Your task to perform on an android device: delete the emails in spam in the gmail app Image 0: 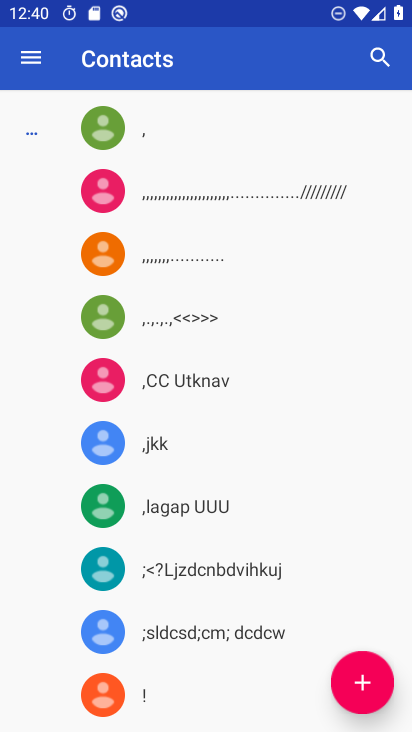
Step 0: press home button
Your task to perform on an android device: delete the emails in spam in the gmail app Image 1: 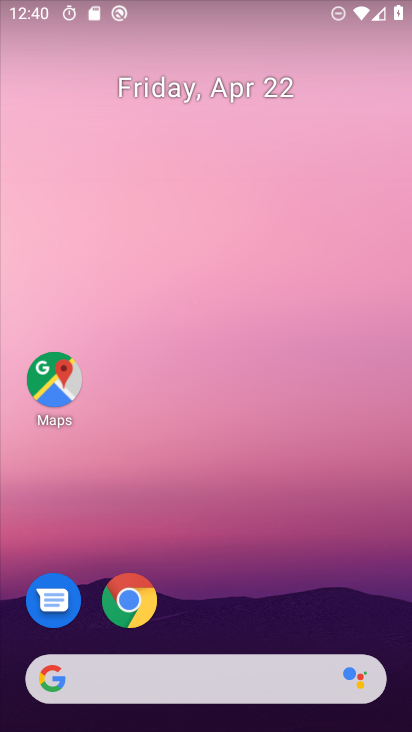
Step 1: drag from (193, 564) to (245, 63)
Your task to perform on an android device: delete the emails in spam in the gmail app Image 2: 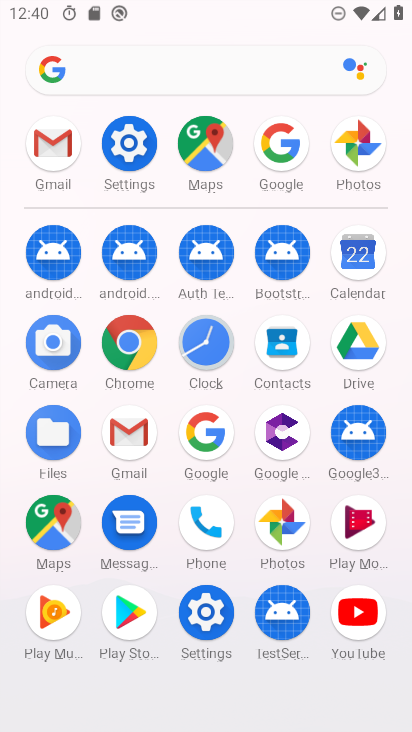
Step 2: click (53, 144)
Your task to perform on an android device: delete the emails in spam in the gmail app Image 3: 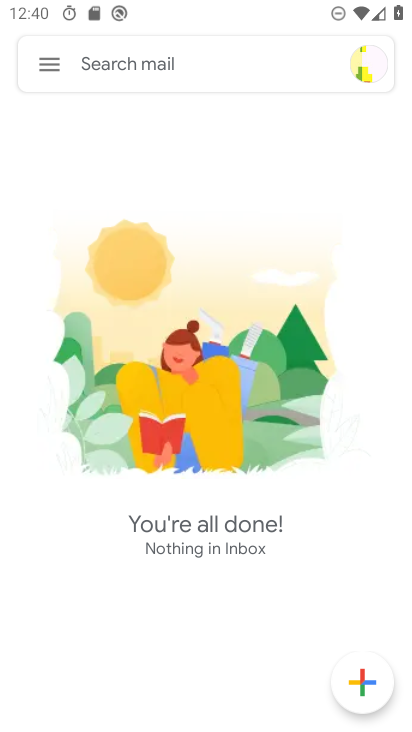
Step 3: click (51, 65)
Your task to perform on an android device: delete the emails in spam in the gmail app Image 4: 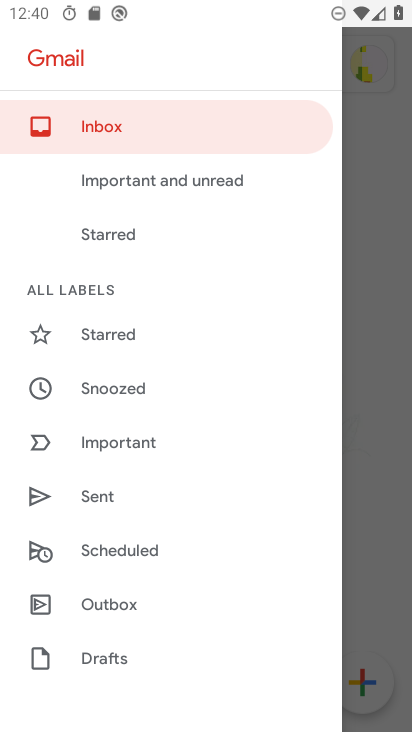
Step 4: click (51, 65)
Your task to perform on an android device: delete the emails in spam in the gmail app Image 5: 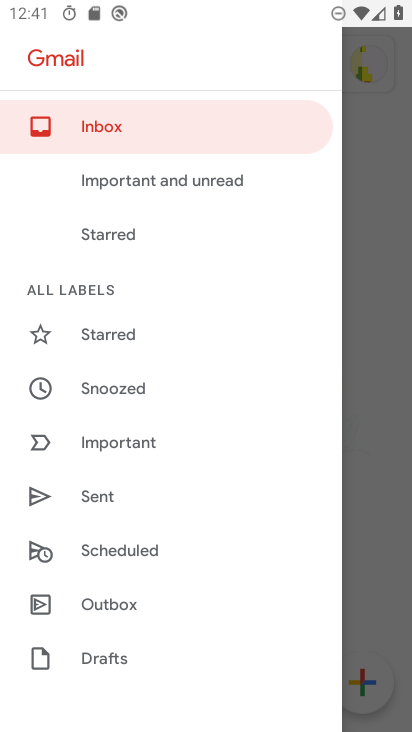
Step 5: drag from (163, 597) to (190, 466)
Your task to perform on an android device: delete the emails in spam in the gmail app Image 6: 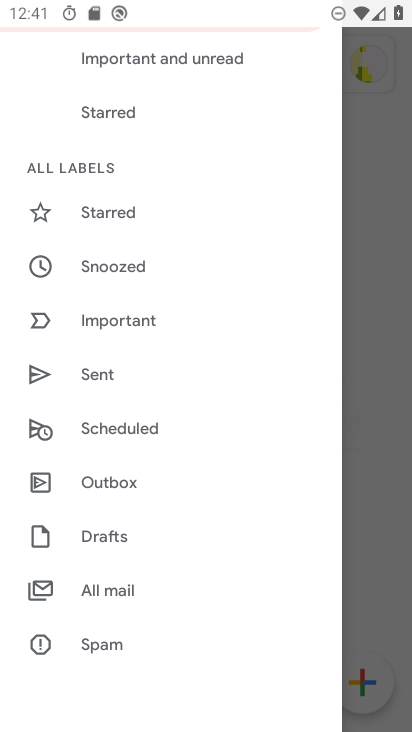
Step 6: drag from (173, 592) to (213, 525)
Your task to perform on an android device: delete the emails in spam in the gmail app Image 7: 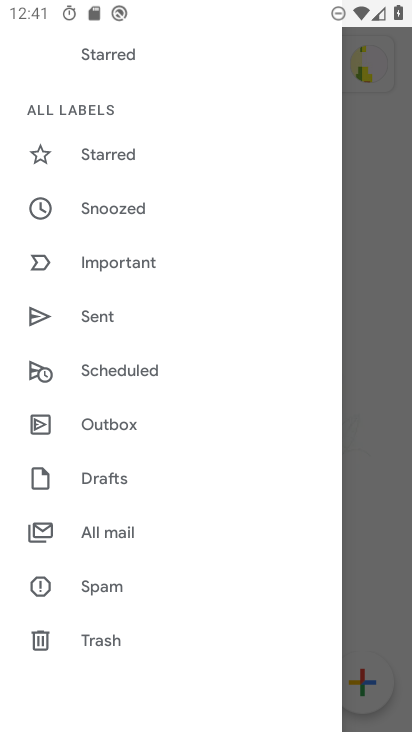
Step 7: click (104, 579)
Your task to perform on an android device: delete the emails in spam in the gmail app Image 8: 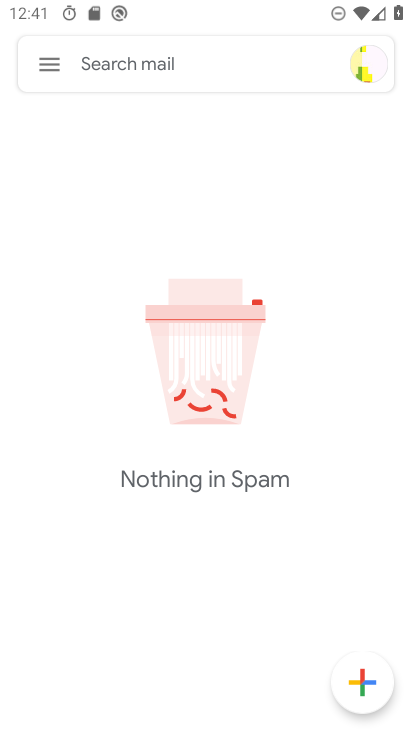
Step 8: task complete